Your task to perform on an android device: Go to internet settings Image 0: 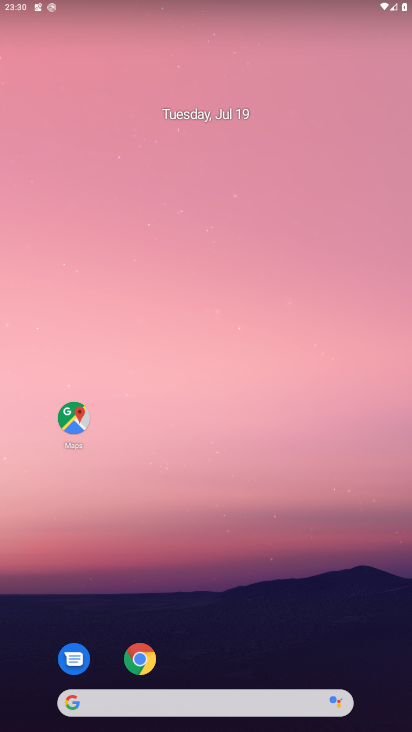
Step 0: drag from (273, 594) to (274, 87)
Your task to perform on an android device: Go to internet settings Image 1: 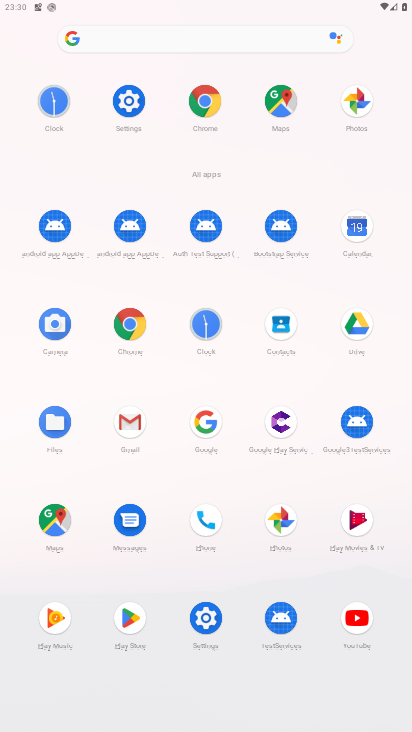
Step 1: click (138, 94)
Your task to perform on an android device: Go to internet settings Image 2: 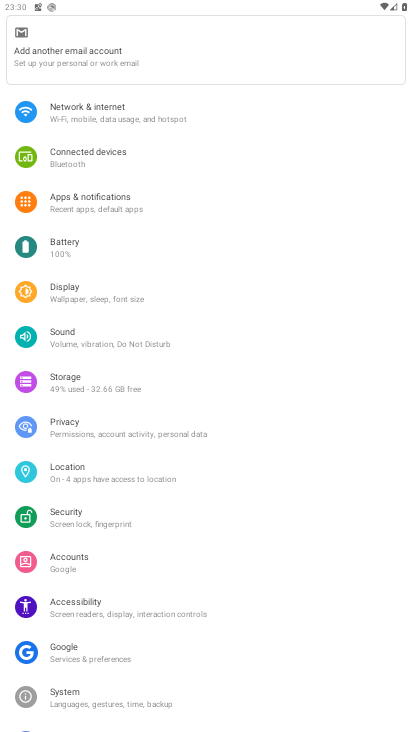
Step 2: click (104, 117)
Your task to perform on an android device: Go to internet settings Image 3: 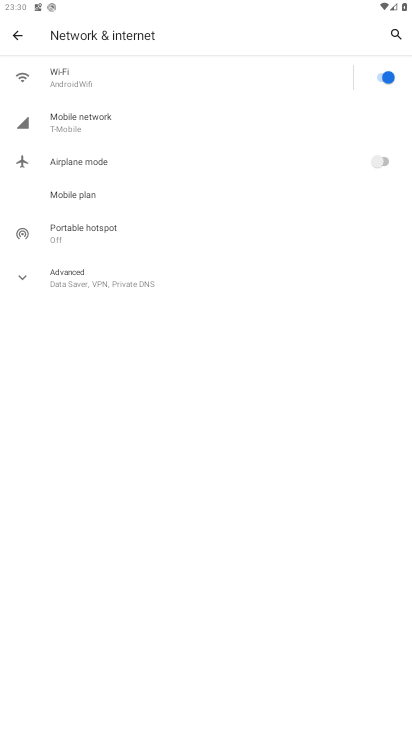
Step 3: task complete